Your task to perform on an android device: turn on javascript in the chrome app Image 0: 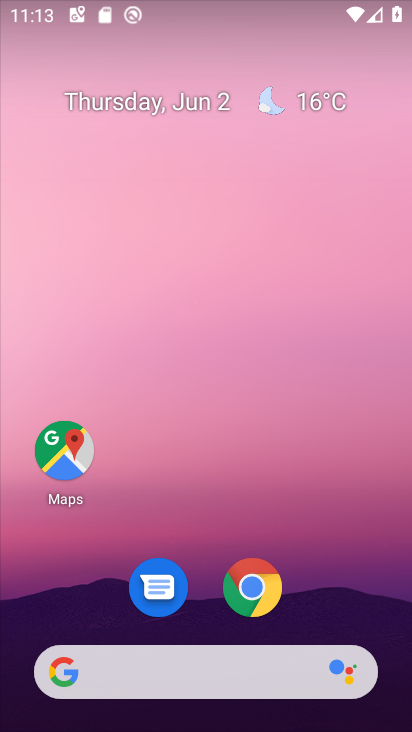
Step 0: click (253, 587)
Your task to perform on an android device: turn on javascript in the chrome app Image 1: 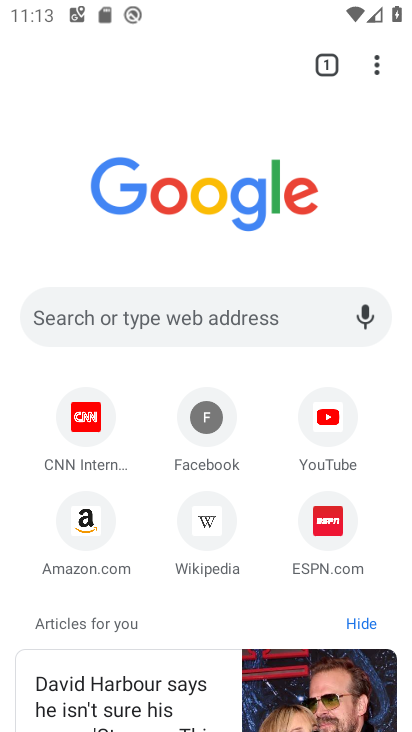
Step 1: click (376, 62)
Your task to perform on an android device: turn on javascript in the chrome app Image 2: 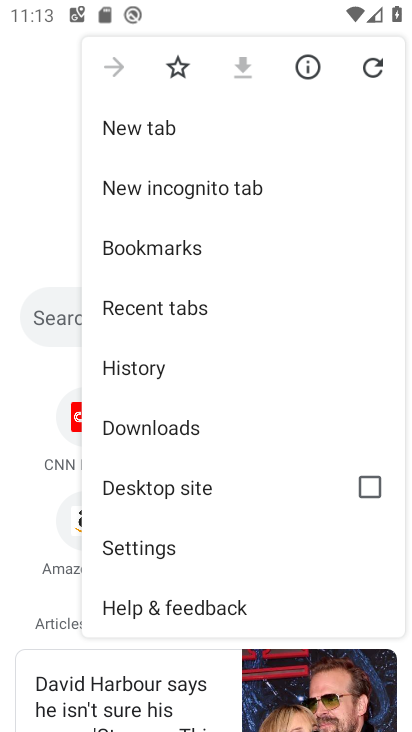
Step 2: click (204, 548)
Your task to perform on an android device: turn on javascript in the chrome app Image 3: 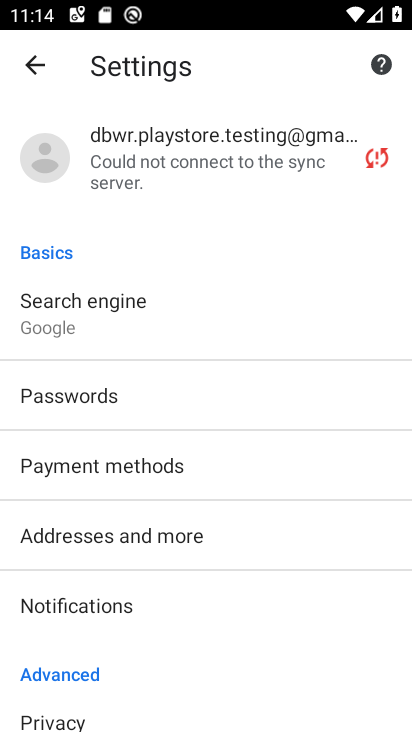
Step 3: drag from (249, 605) to (241, 304)
Your task to perform on an android device: turn on javascript in the chrome app Image 4: 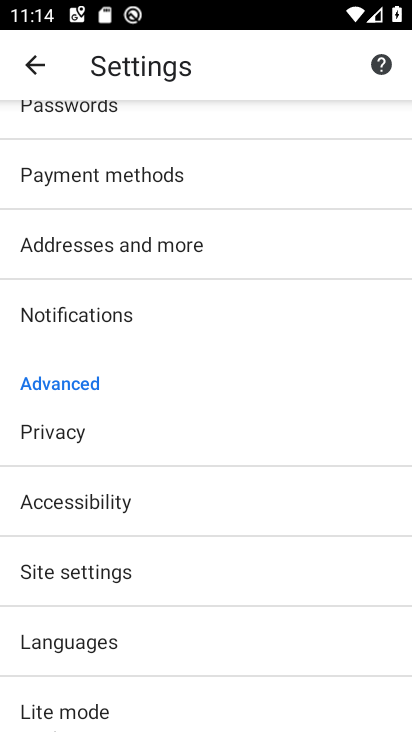
Step 4: click (222, 566)
Your task to perform on an android device: turn on javascript in the chrome app Image 5: 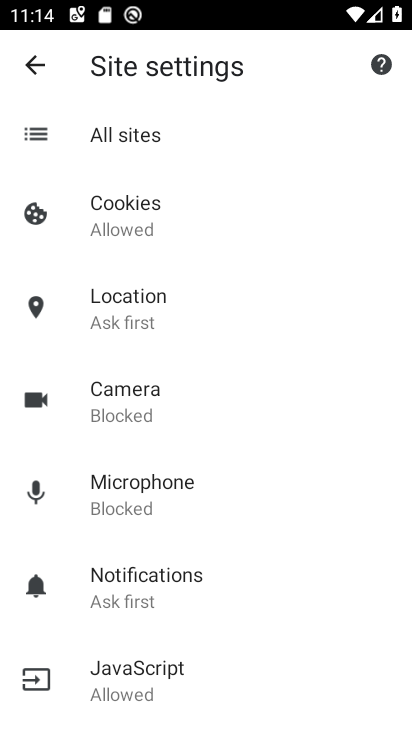
Step 5: click (210, 671)
Your task to perform on an android device: turn on javascript in the chrome app Image 6: 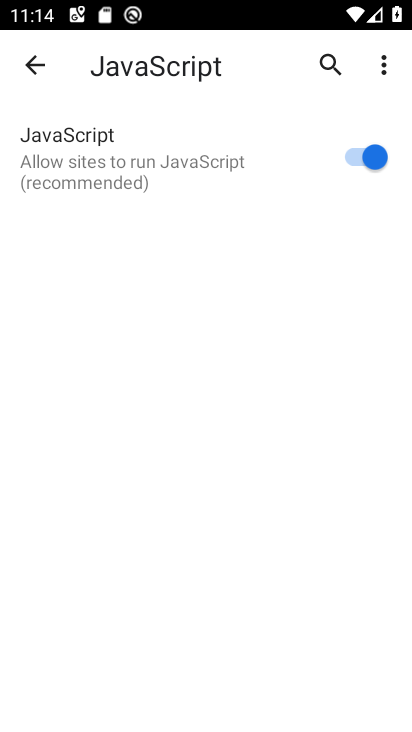
Step 6: task complete